Your task to perform on an android device: Open settings on Google Maps Image 0: 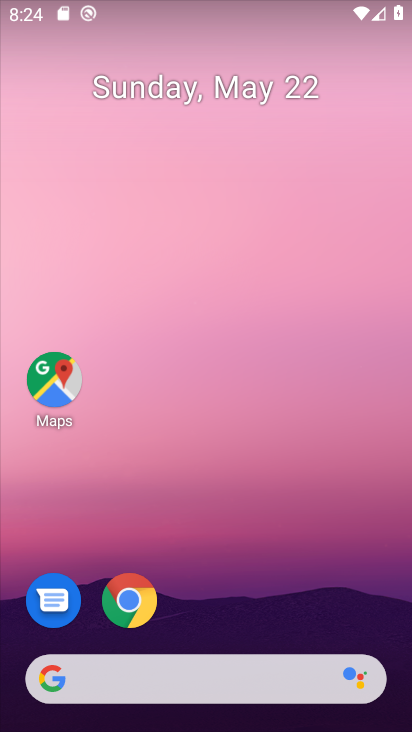
Step 0: click (57, 386)
Your task to perform on an android device: Open settings on Google Maps Image 1: 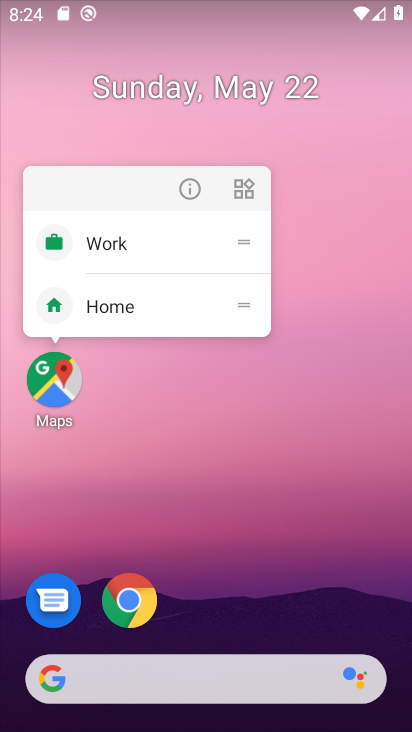
Step 1: click (57, 386)
Your task to perform on an android device: Open settings on Google Maps Image 2: 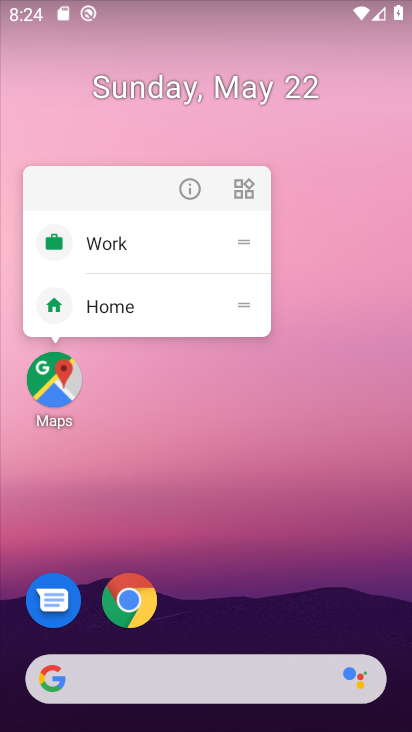
Step 2: click (46, 375)
Your task to perform on an android device: Open settings on Google Maps Image 3: 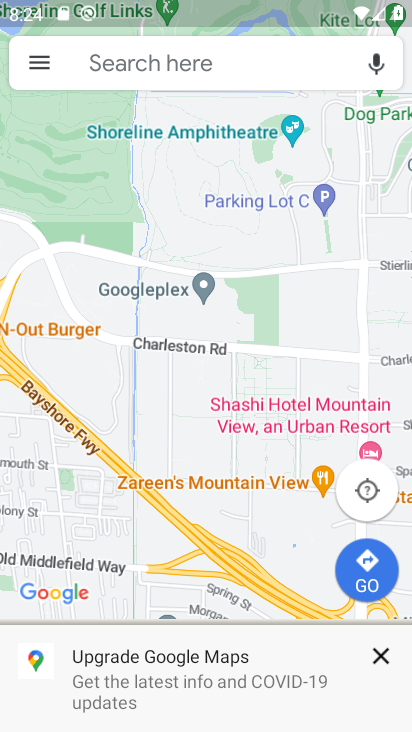
Step 3: click (45, 61)
Your task to perform on an android device: Open settings on Google Maps Image 4: 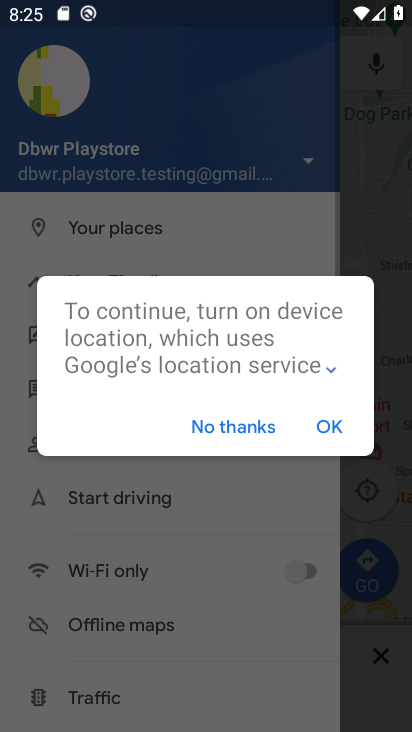
Step 4: drag from (342, 431) to (288, 431)
Your task to perform on an android device: Open settings on Google Maps Image 5: 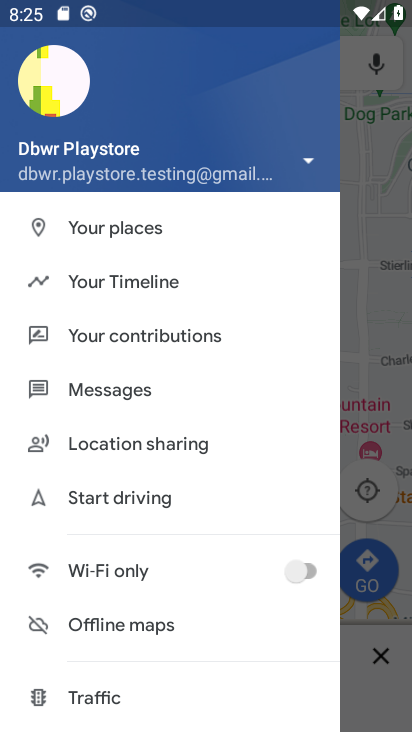
Step 5: click (313, 434)
Your task to perform on an android device: Open settings on Google Maps Image 6: 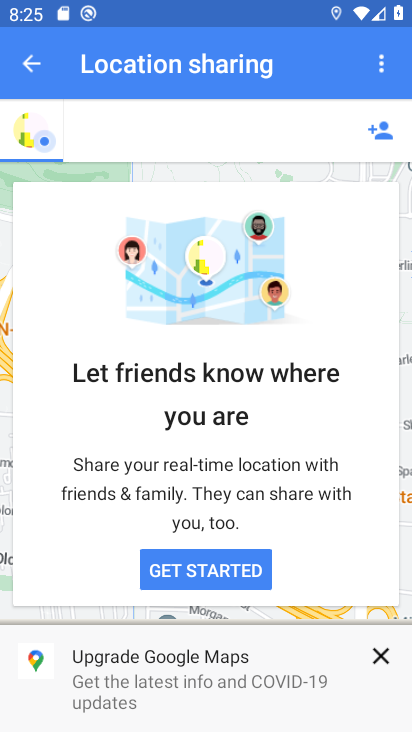
Step 6: click (25, 67)
Your task to perform on an android device: Open settings on Google Maps Image 7: 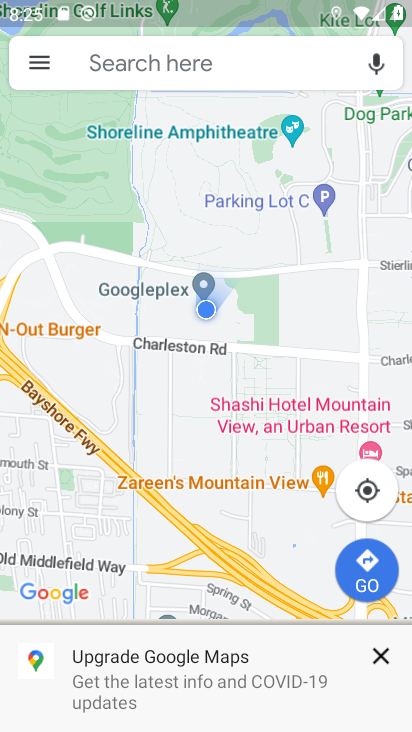
Step 7: click (44, 64)
Your task to perform on an android device: Open settings on Google Maps Image 8: 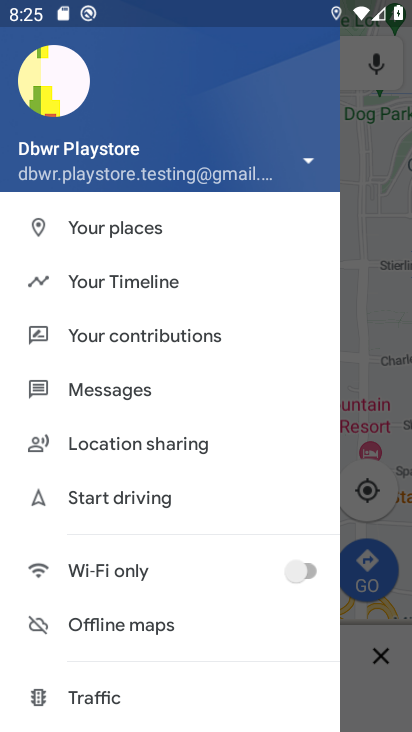
Step 8: drag from (120, 600) to (194, 306)
Your task to perform on an android device: Open settings on Google Maps Image 9: 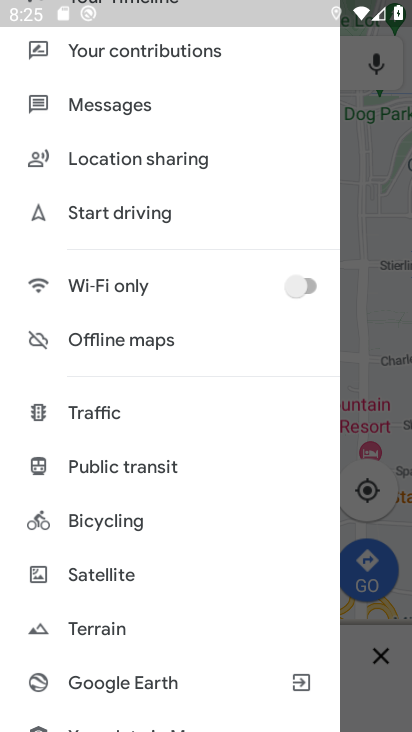
Step 9: drag from (112, 707) to (203, 347)
Your task to perform on an android device: Open settings on Google Maps Image 10: 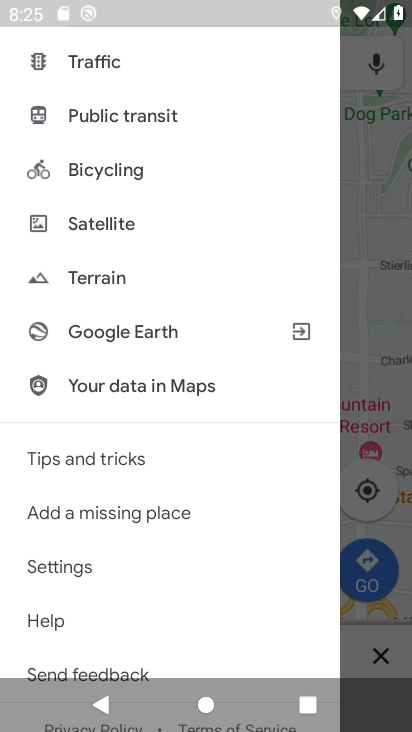
Step 10: click (74, 564)
Your task to perform on an android device: Open settings on Google Maps Image 11: 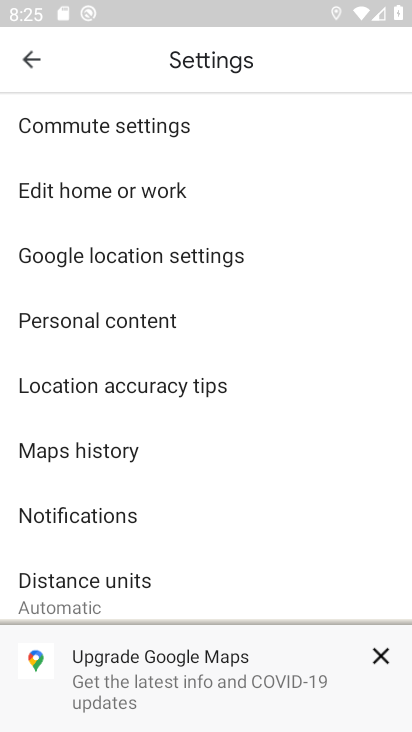
Step 11: task complete